Your task to perform on an android device: find which apps use the phone's location Image 0: 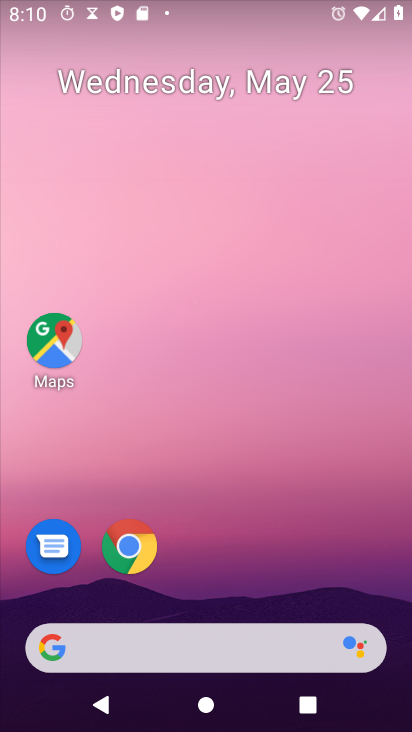
Step 0: drag from (218, 580) to (107, 5)
Your task to perform on an android device: find which apps use the phone's location Image 1: 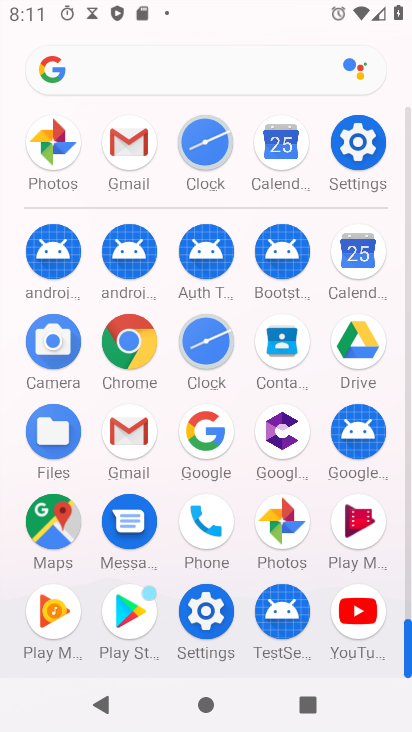
Step 1: click (351, 158)
Your task to perform on an android device: find which apps use the phone's location Image 2: 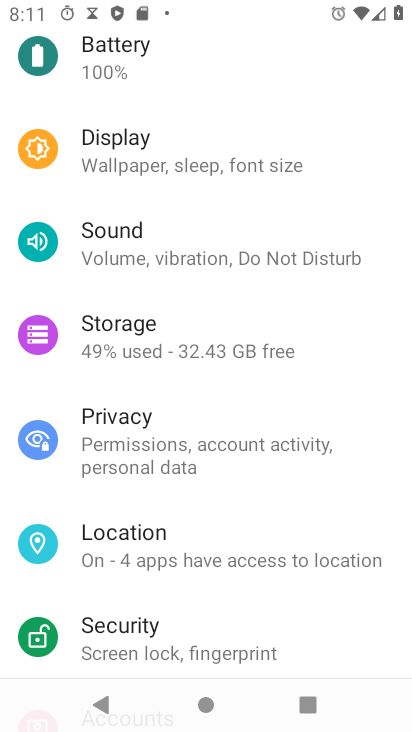
Step 2: click (85, 540)
Your task to perform on an android device: find which apps use the phone's location Image 3: 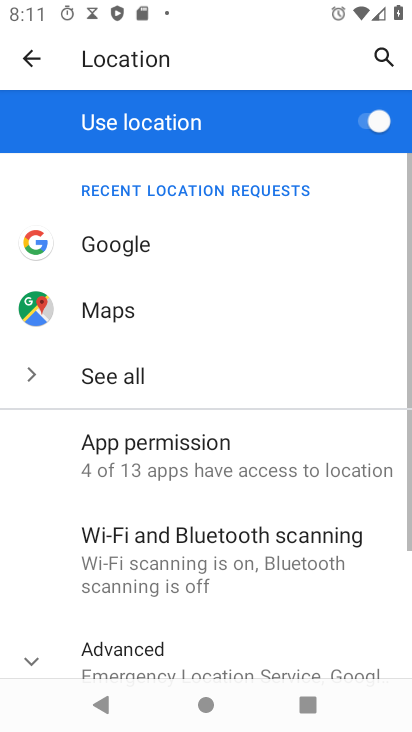
Step 3: click (184, 471)
Your task to perform on an android device: find which apps use the phone's location Image 4: 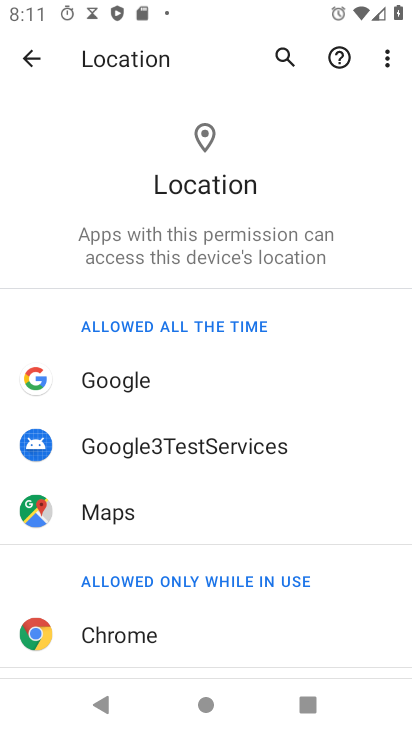
Step 4: task complete